Your task to perform on an android device: Go to Google maps Image 0: 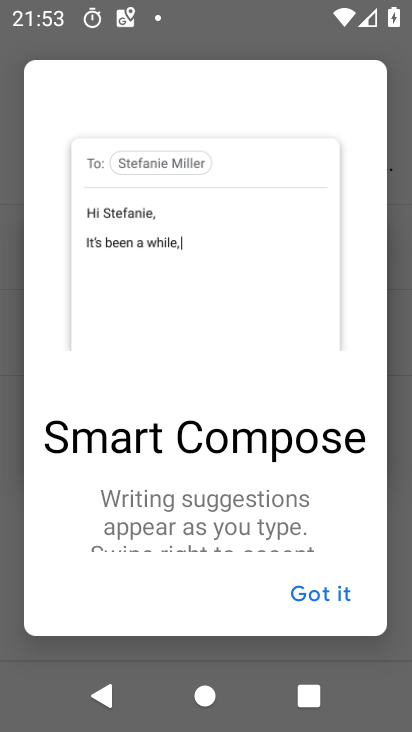
Step 0: click (318, 599)
Your task to perform on an android device: Go to Google maps Image 1: 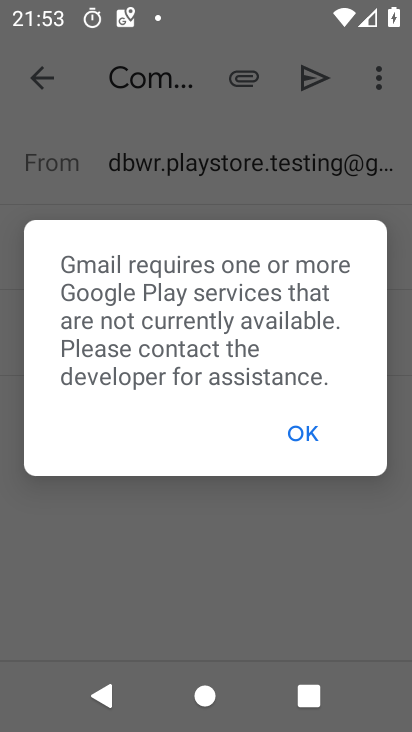
Step 1: click (302, 434)
Your task to perform on an android device: Go to Google maps Image 2: 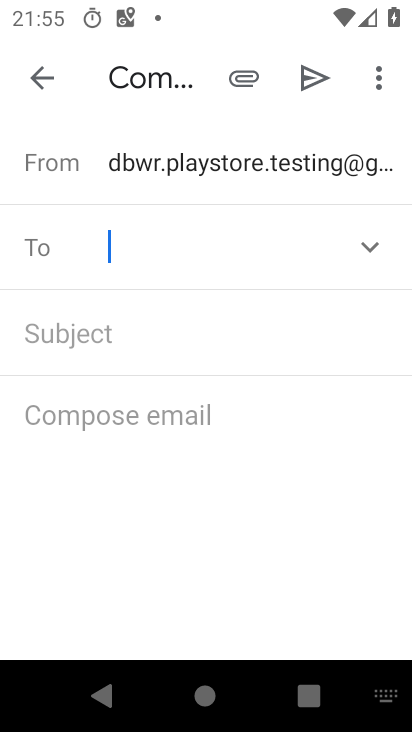
Step 2: press home button
Your task to perform on an android device: Go to Google maps Image 3: 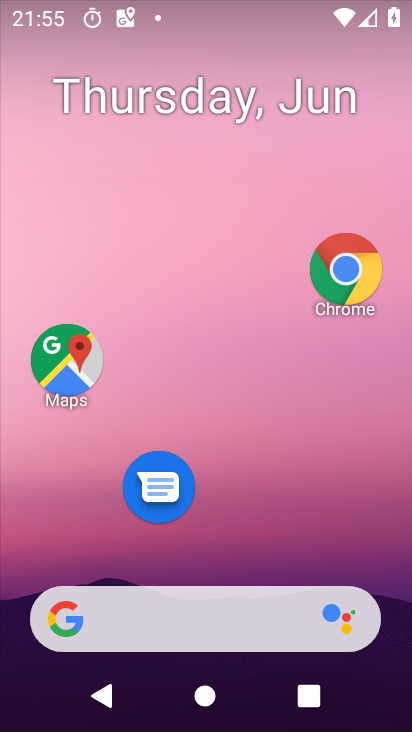
Step 3: drag from (231, 403) to (302, 125)
Your task to perform on an android device: Go to Google maps Image 4: 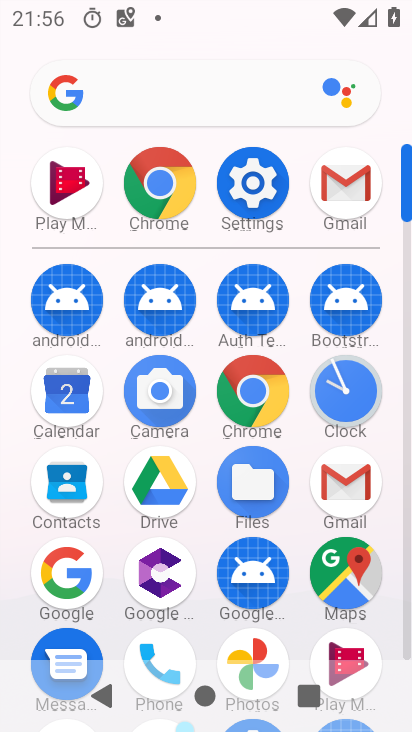
Step 4: click (345, 564)
Your task to perform on an android device: Go to Google maps Image 5: 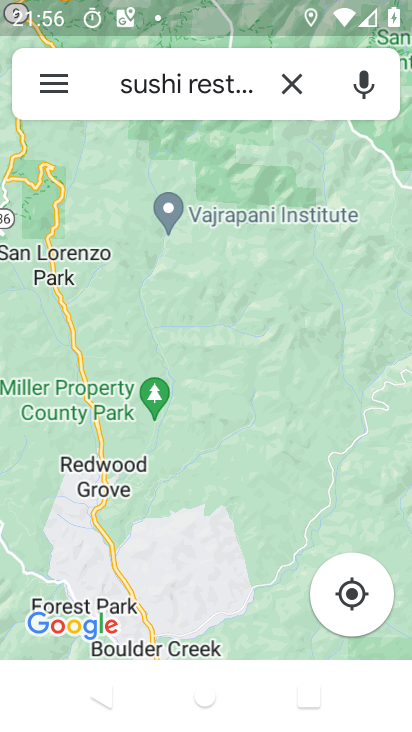
Step 5: click (294, 91)
Your task to perform on an android device: Go to Google maps Image 6: 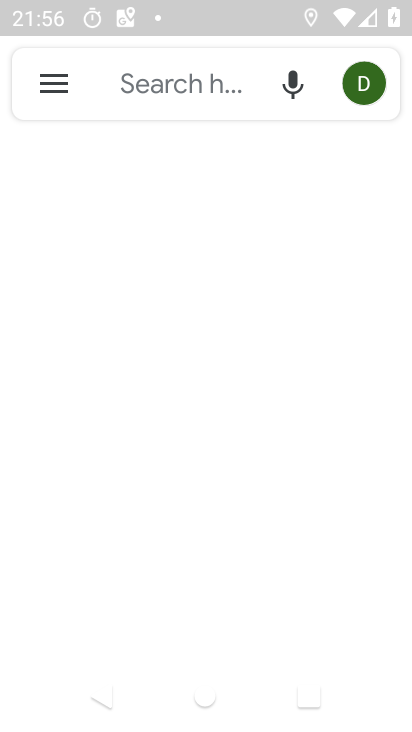
Step 6: task complete